Your task to perform on an android device: Go to notification settings Image 0: 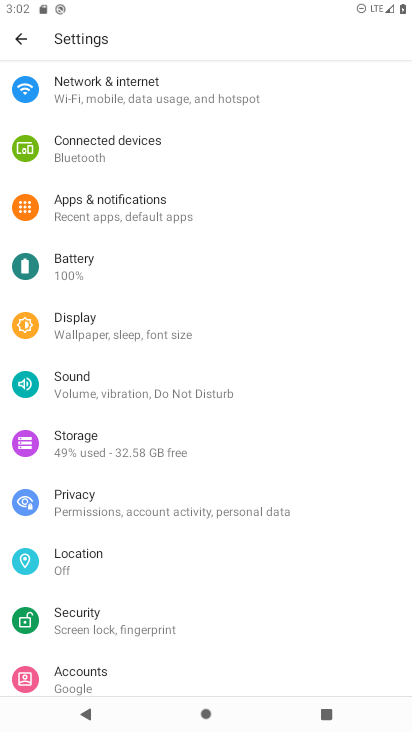
Step 0: click (95, 217)
Your task to perform on an android device: Go to notification settings Image 1: 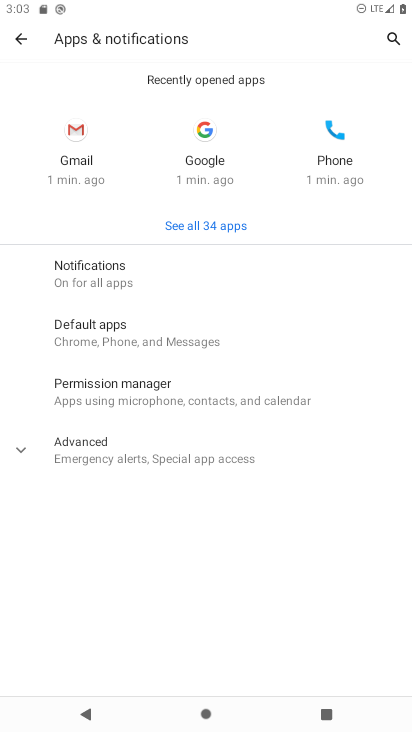
Step 1: click (75, 279)
Your task to perform on an android device: Go to notification settings Image 2: 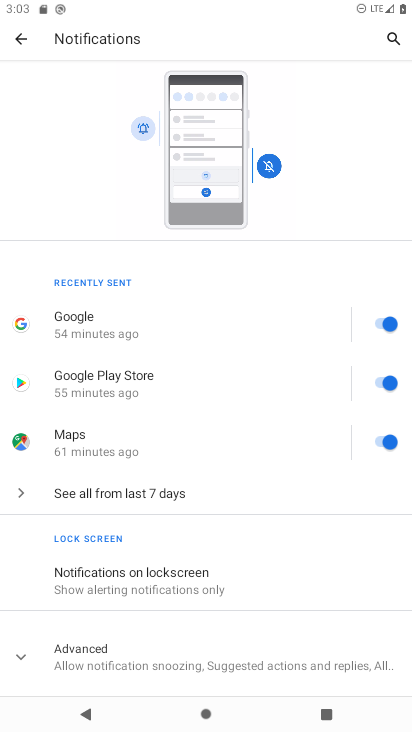
Step 2: drag from (234, 641) to (211, 324)
Your task to perform on an android device: Go to notification settings Image 3: 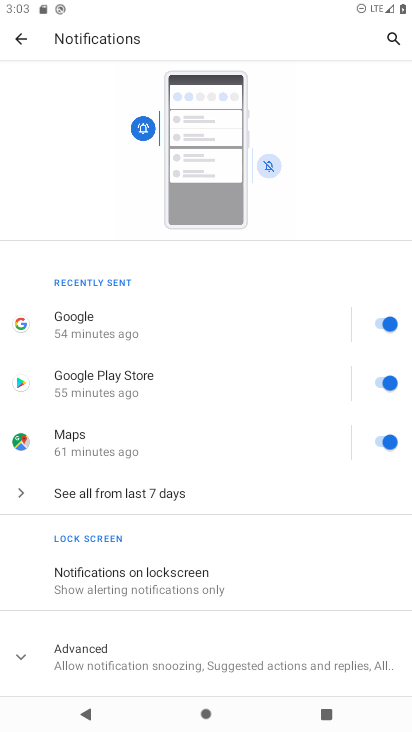
Step 3: click (15, 652)
Your task to perform on an android device: Go to notification settings Image 4: 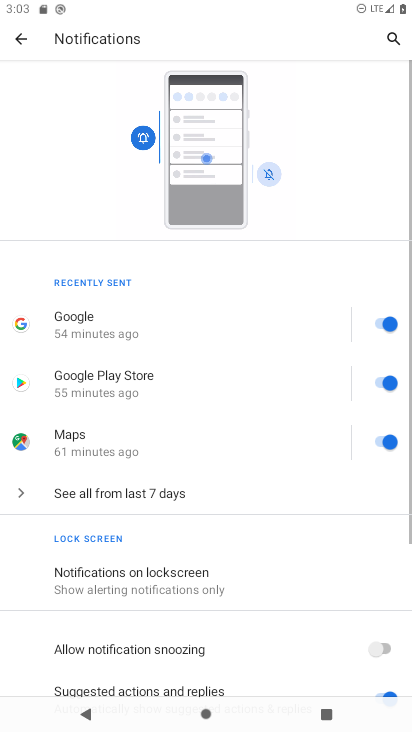
Step 4: task complete